Your task to perform on an android device: find snoozed emails in the gmail app Image 0: 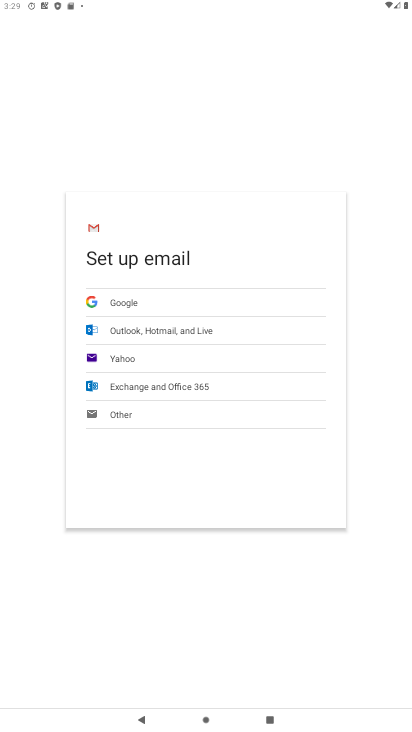
Step 0: press home button
Your task to perform on an android device: find snoozed emails in the gmail app Image 1: 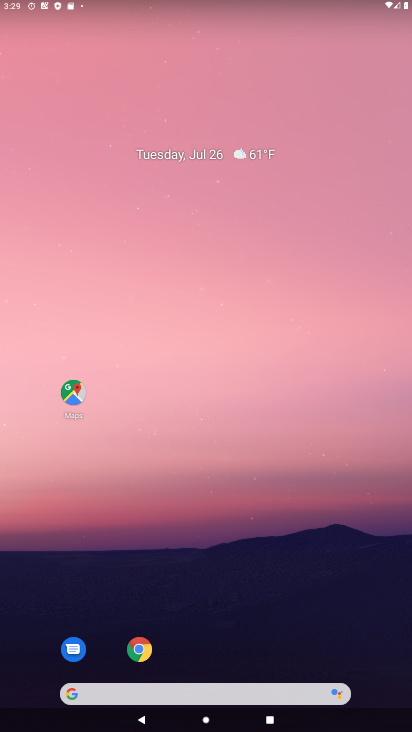
Step 1: drag from (28, 715) to (275, 60)
Your task to perform on an android device: find snoozed emails in the gmail app Image 2: 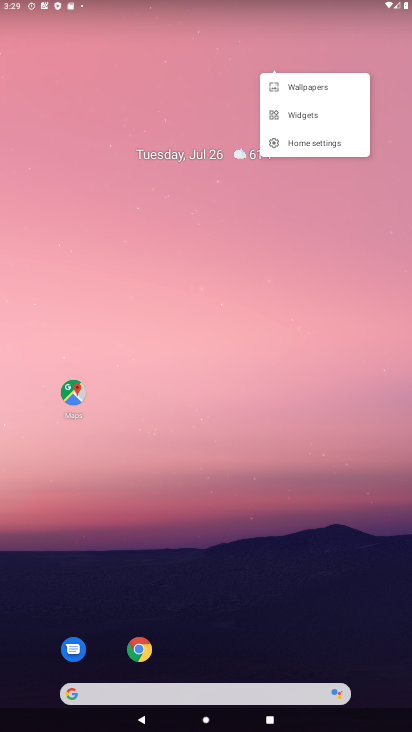
Step 2: drag from (31, 689) to (208, 129)
Your task to perform on an android device: find snoozed emails in the gmail app Image 3: 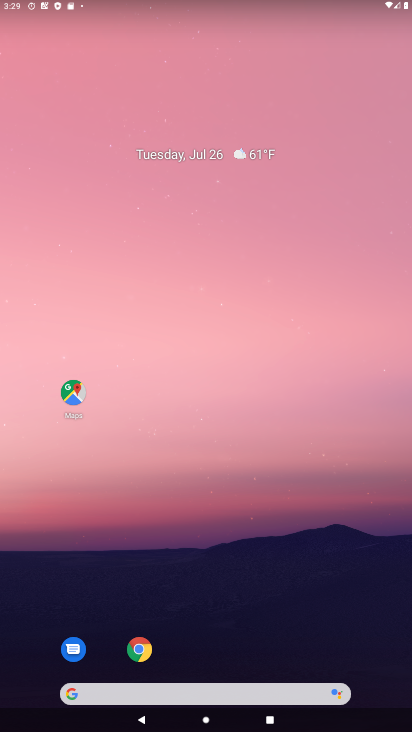
Step 3: drag from (20, 695) to (254, 2)
Your task to perform on an android device: find snoozed emails in the gmail app Image 4: 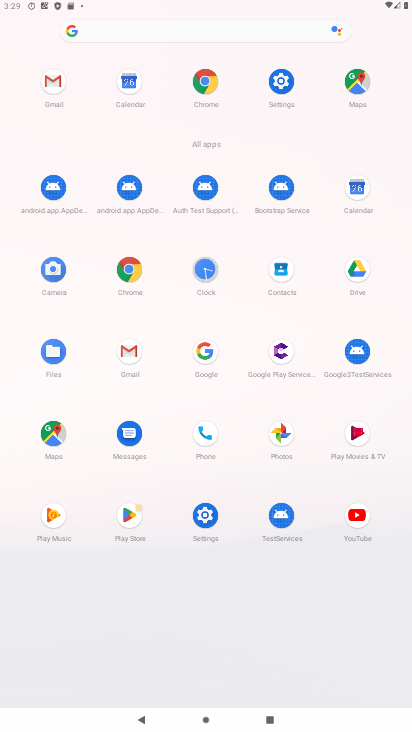
Step 4: click (128, 361)
Your task to perform on an android device: find snoozed emails in the gmail app Image 5: 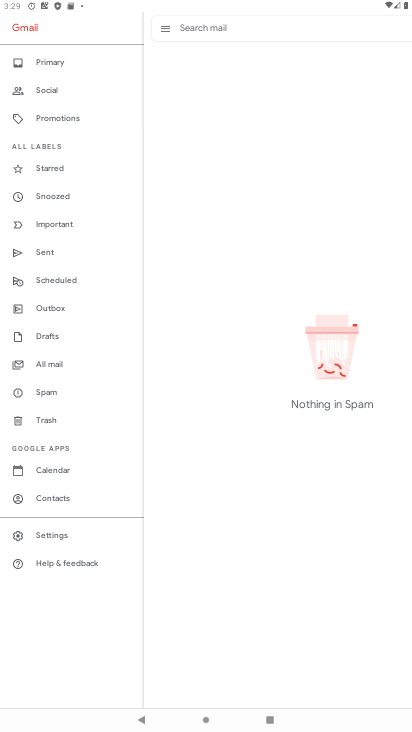
Step 5: click (57, 186)
Your task to perform on an android device: find snoozed emails in the gmail app Image 6: 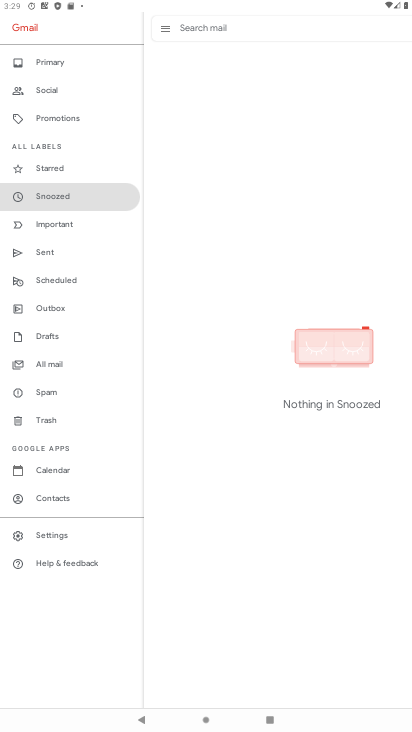
Step 6: task complete